Your task to perform on an android device: turn on wifi Image 0: 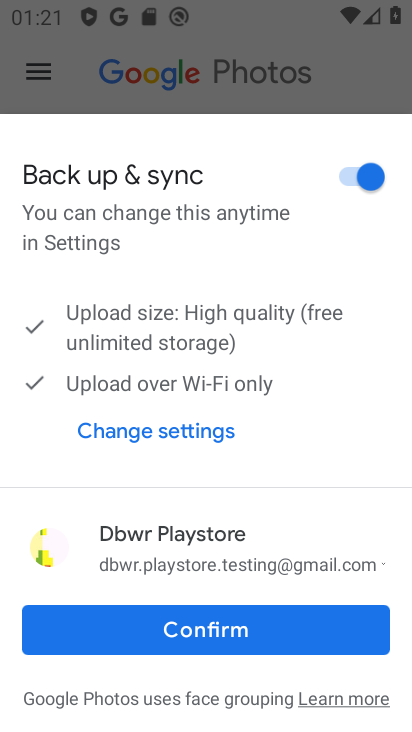
Step 0: press home button
Your task to perform on an android device: turn on wifi Image 1: 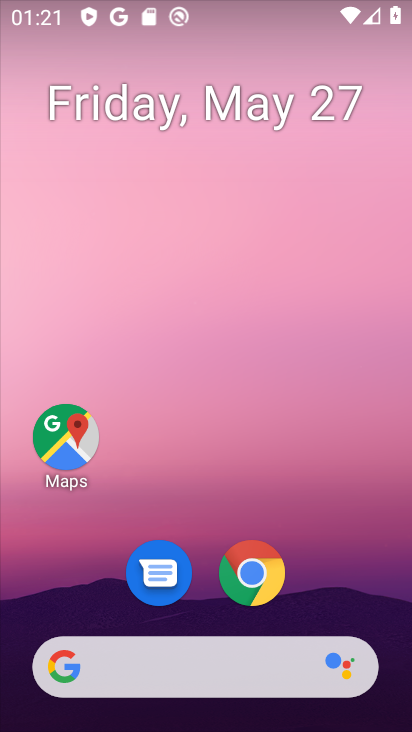
Step 1: drag from (206, 627) to (130, 54)
Your task to perform on an android device: turn on wifi Image 2: 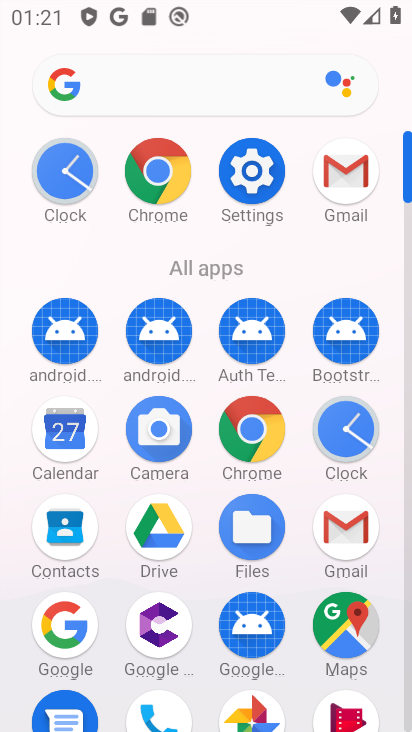
Step 2: click (226, 182)
Your task to perform on an android device: turn on wifi Image 3: 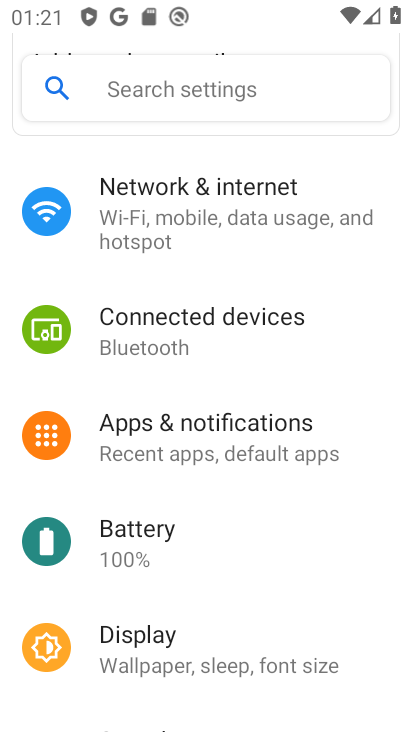
Step 3: click (217, 224)
Your task to perform on an android device: turn on wifi Image 4: 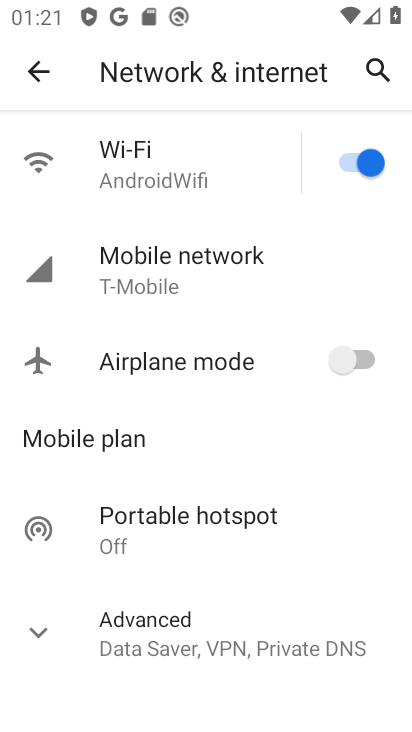
Step 4: click (142, 187)
Your task to perform on an android device: turn on wifi Image 5: 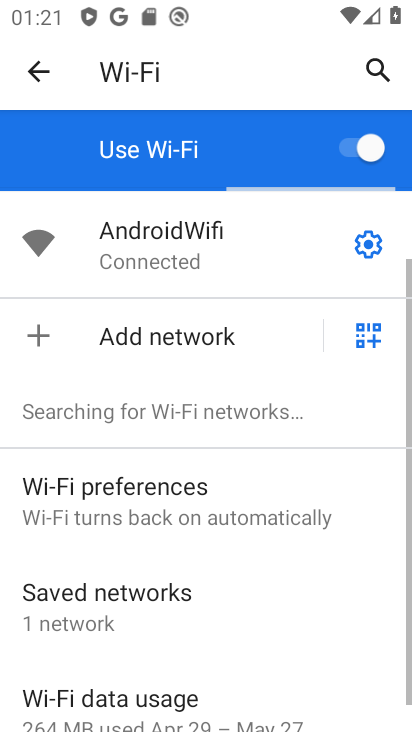
Step 5: click (354, 142)
Your task to perform on an android device: turn on wifi Image 6: 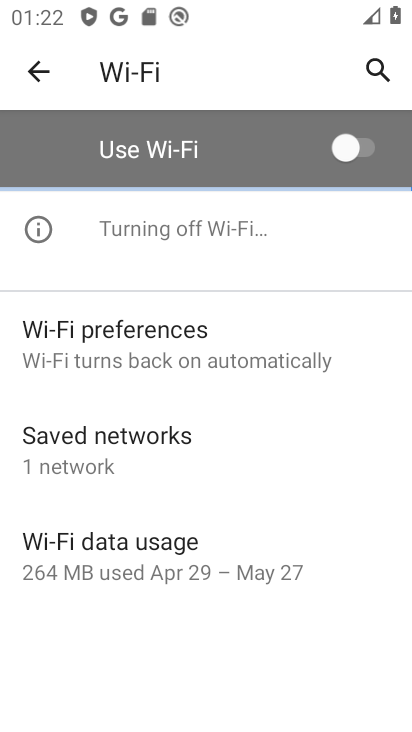
Step 6: task complete